Your task to perform on an android device: turn on sleep mode Image 0: 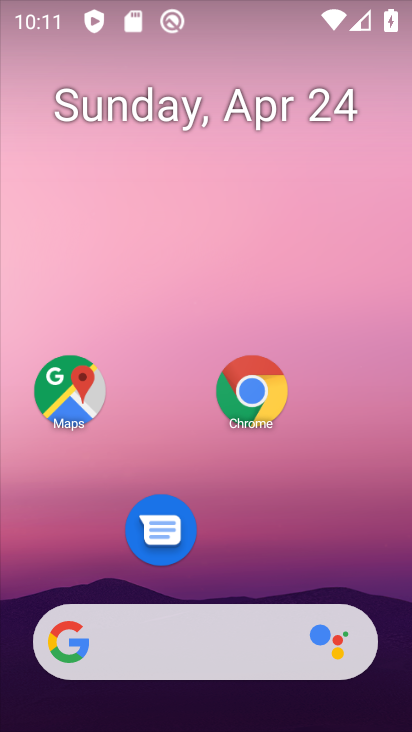
Step 0: drag from (211, 579) to (223, 93)
Your task to perform on an android device: turn on sleep mode Image 1: 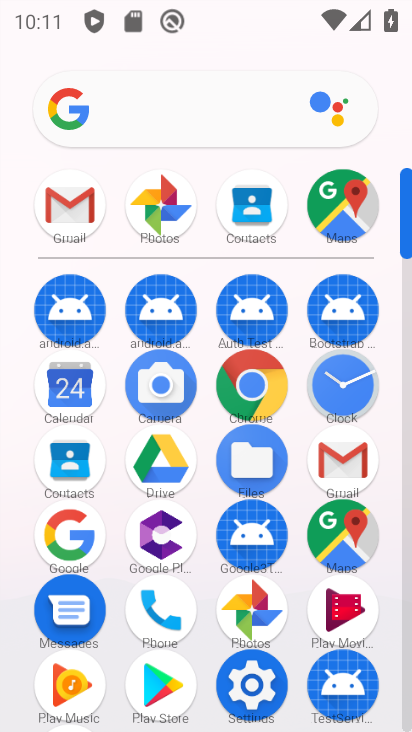
Step 1: click (258, 686)
Your task to perform on an android device: turn on sleep mode Image 2: 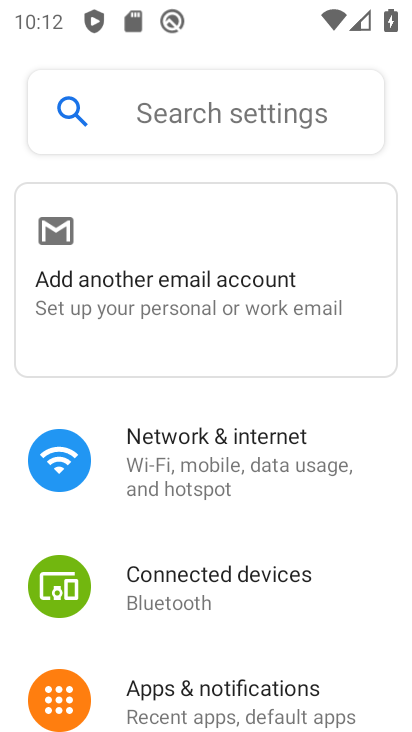
Step 2: task complete